Your task to perform on an android device: check storage Image 0: 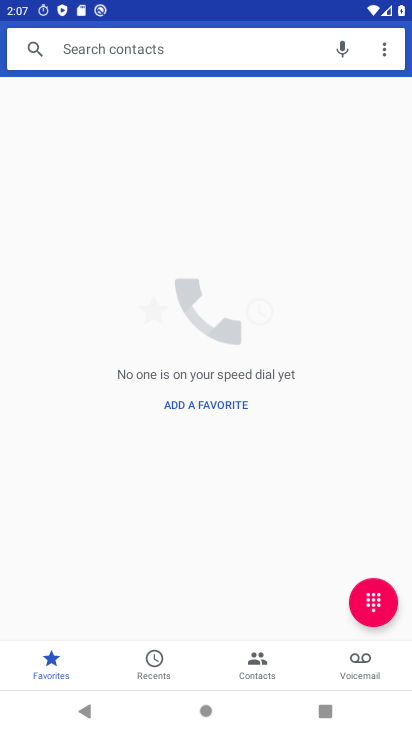
Step 0: press home button
Your task to perform on an android device: check storage Image 1: 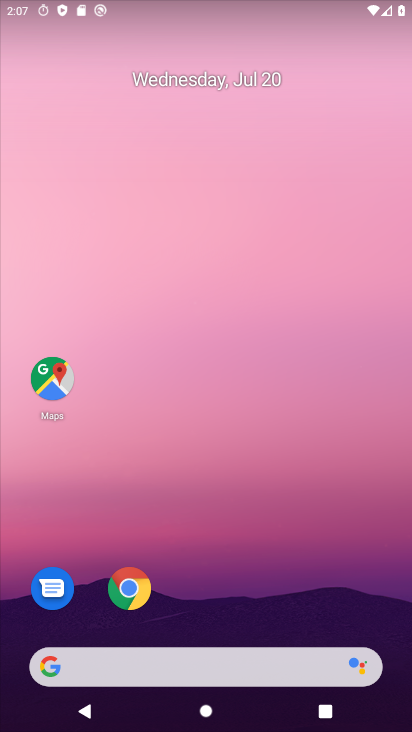
Step 1: drag from (290, 463) to (329, 50)
Your task to perform on an android device: check storage Image 2: 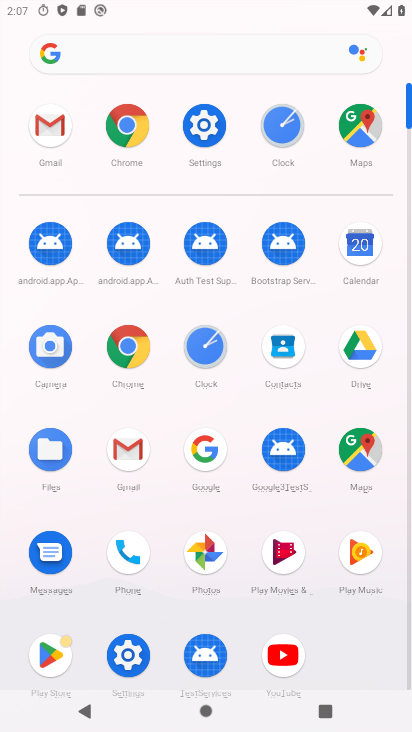
Step 2: click (203, 117)
Your task to perform on an android device: check storage Image 3: 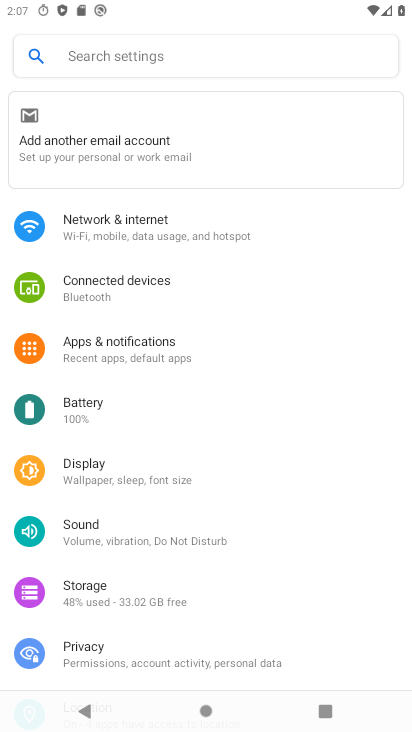
Step 3: click (144, 599)
Your task to perform on an android device: check storage Image 4: 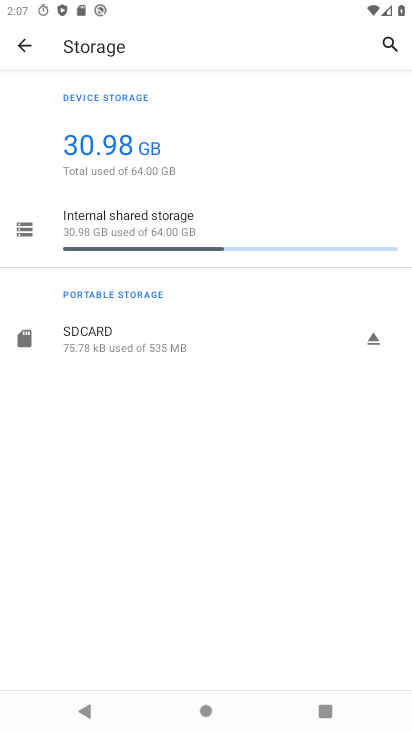
Step 4: task complete